Your task to perform on an android device: turn off notifications settings in the gmail app Image 0: 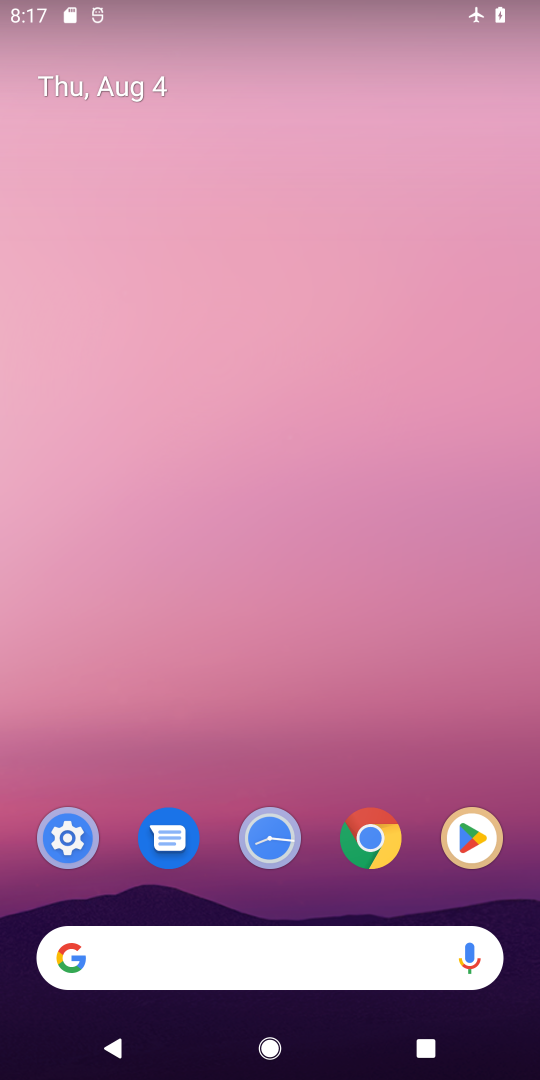
Step 0: drag from (212, 762) to (238, 141)
Your task to perform on an android device: turn off notifications settings in the gmail app Image 1: 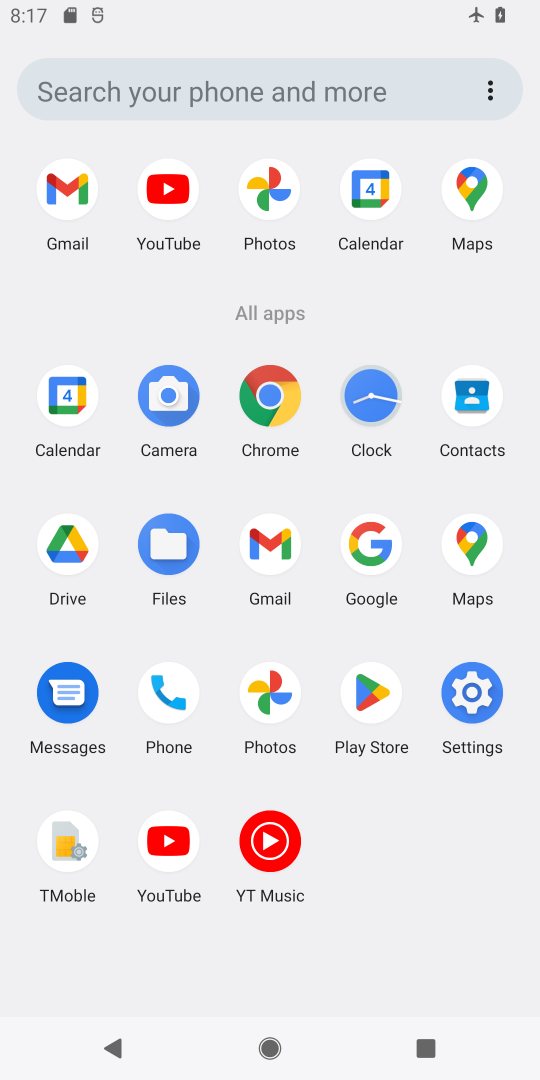
Step 1: click (270, 541)
Your task to perform on an android device: turn off notifications settings in the gmail app Image 2: 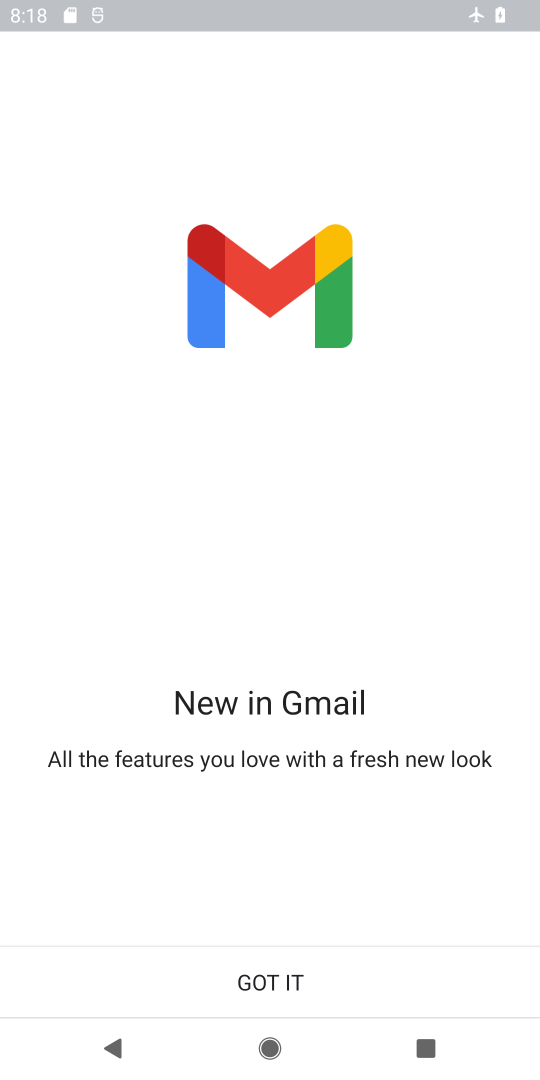
Step 2: click (286, 975)
Your task to perform on an android device: turn off notifications settings in the gmail app Image 3: 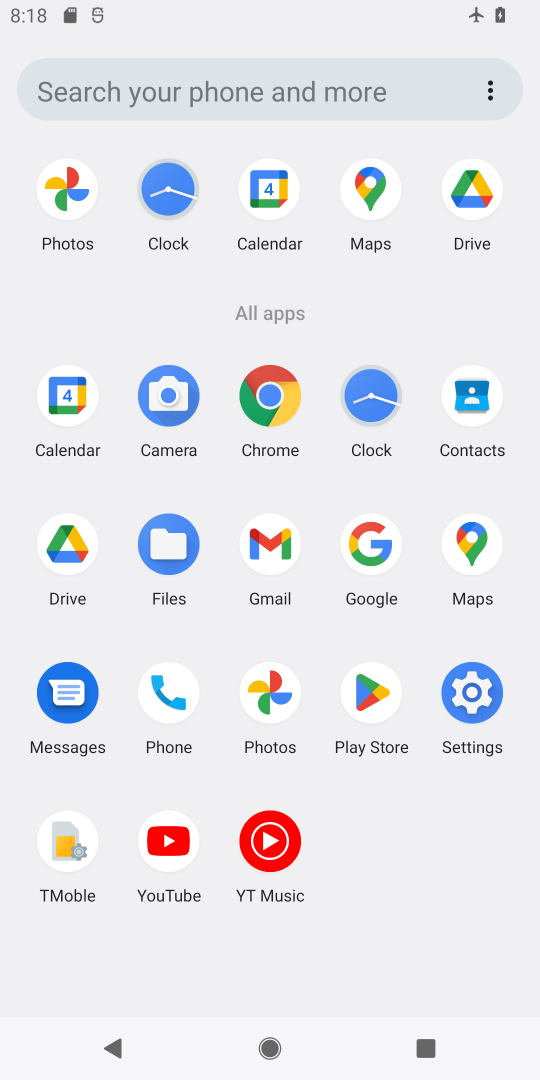
Step 3: click (269, 555)
Your task to perform on an android device: turn off notifications settings in the gmail app Image 4: 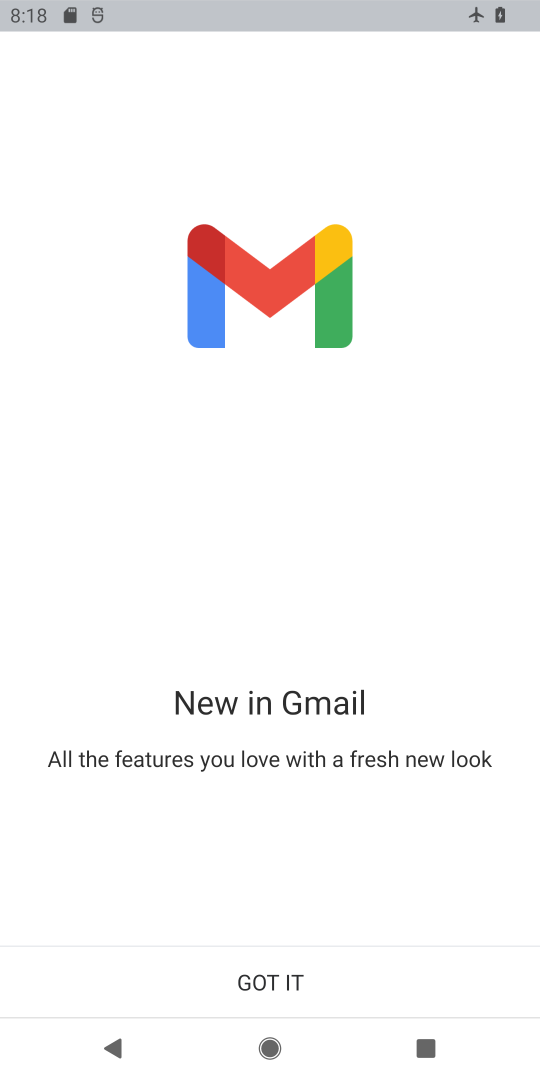
Step 4: drag from (310, 813) to (308, 457)
Your task to perform on an android device: turn off notifications settings in the gmail app Image 5: 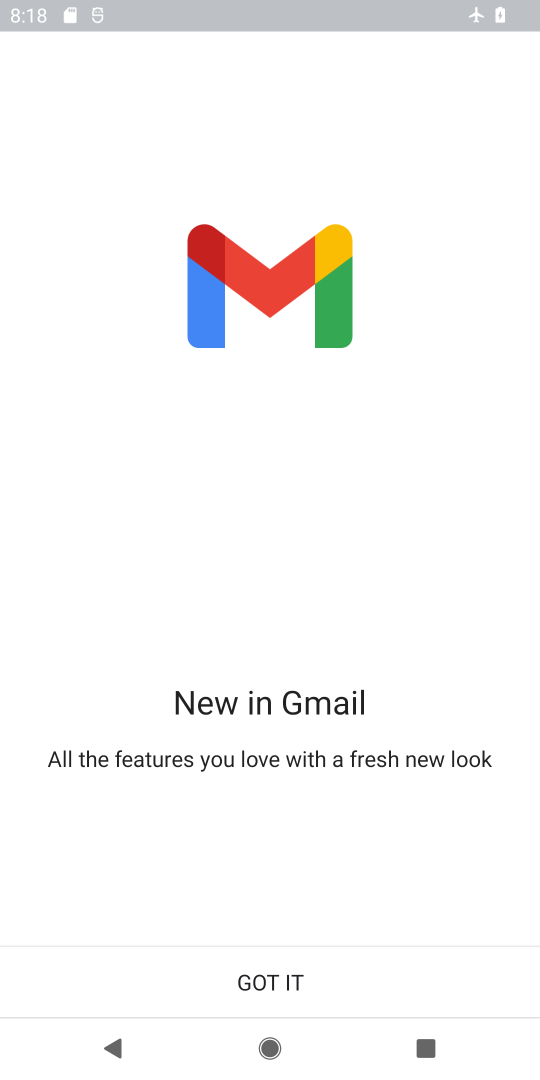
Step 5: click (308, 979)
Your task to perform on an android device: turn off notifications settings in the gmail app Image 6: 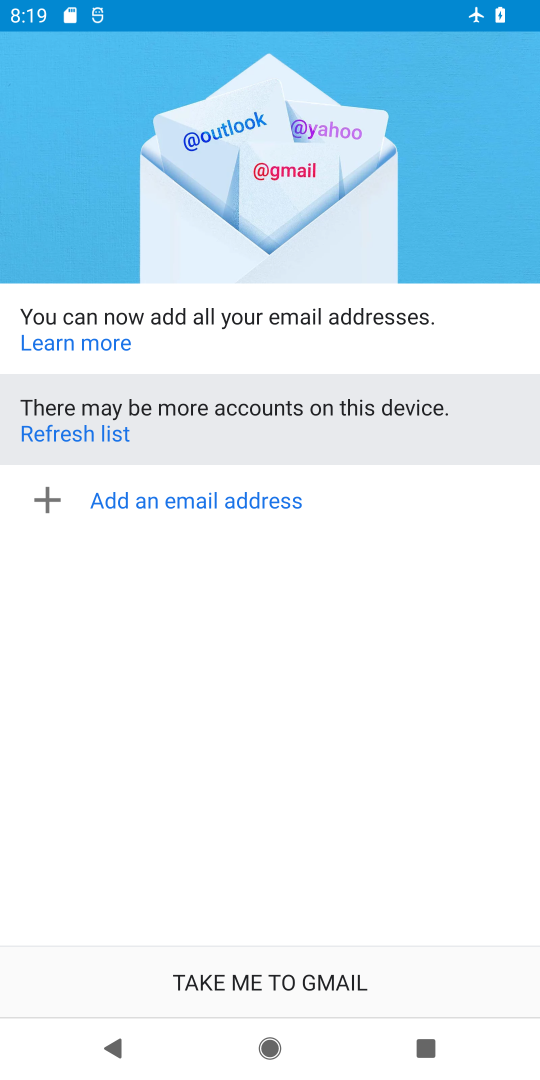
Step 6: click (291, 981)
Your task to perform on an android device: turn off notifications settings in the gmail app Image 7: 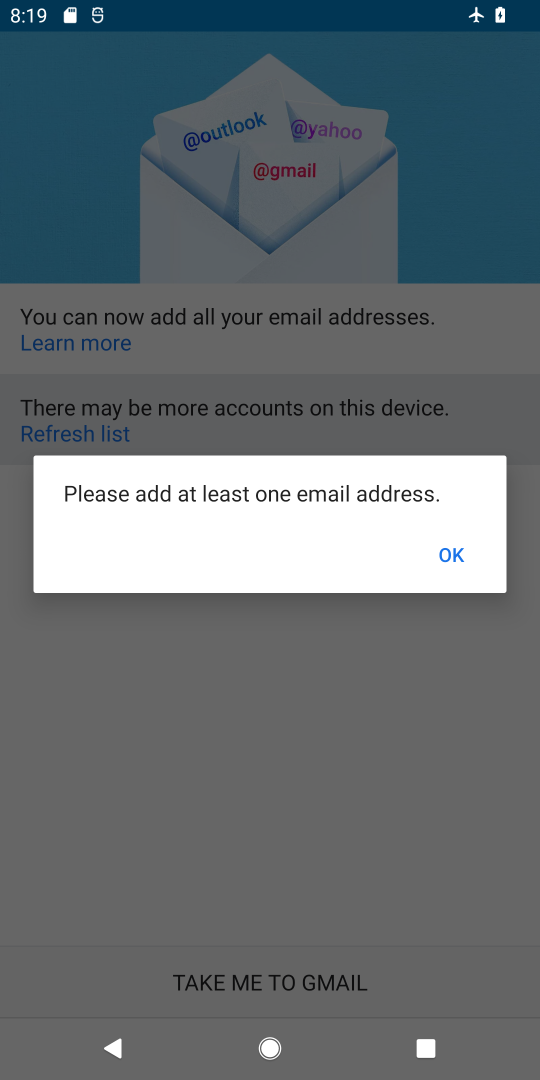
Step 7: task complete